Your task to perform on an android device: set the timer Image 0: 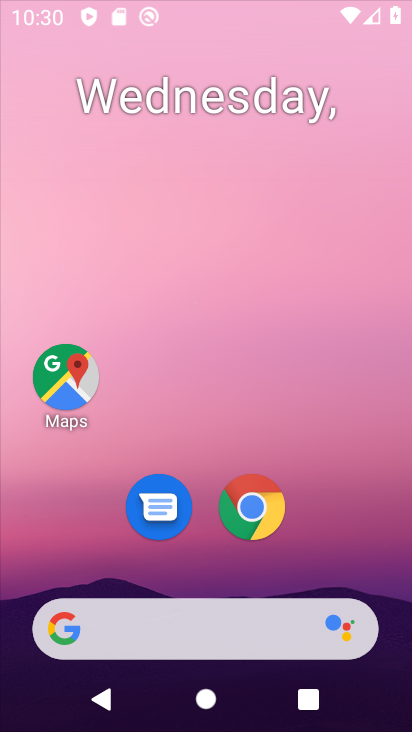
Step 0: drag from (265, 669) to (144, 290)
Your task to perform on an android device: set the timer Image 1: 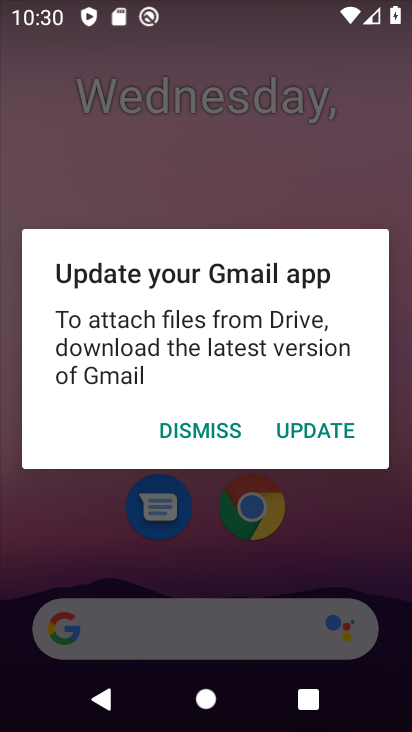
Step 1: press home button
Your task to perform on an android device: set the timer Image 2: 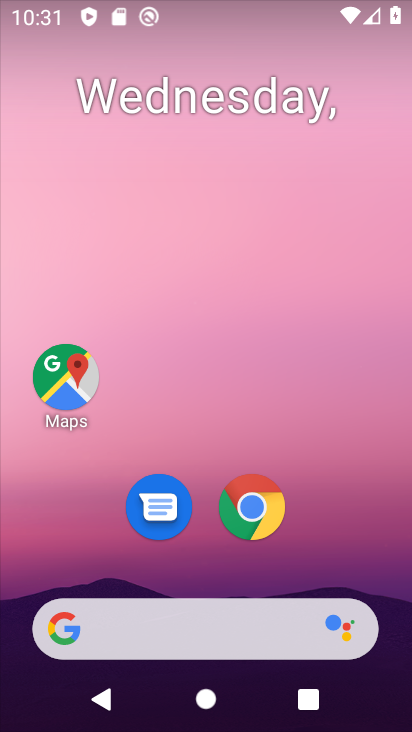
Step 2: drag from (261, 577) to (226, 268)
Your task to perform on an android device: set the timer Image 3: 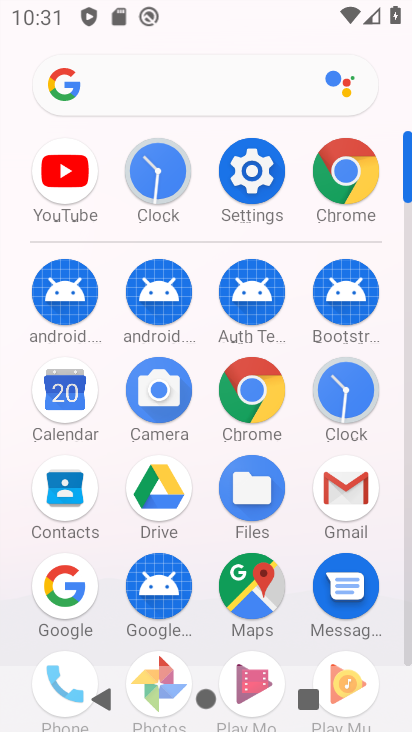
Step 3: click (143, 209)
Your task to perform on an android device: set the timer Image 4: 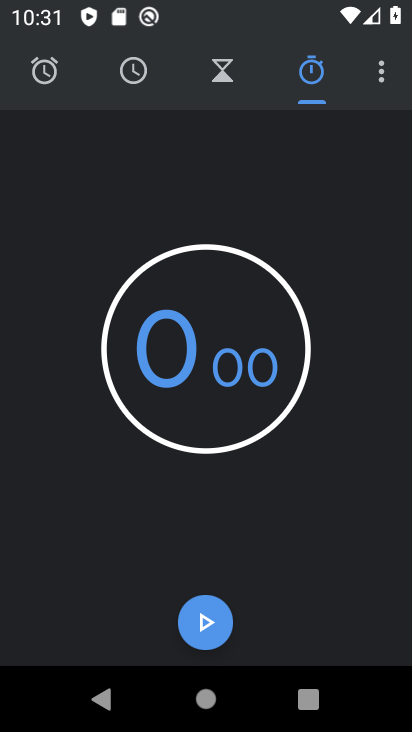
Step 4: click (215, 62)
Your task to perform on an android device: set the timer Image 5: 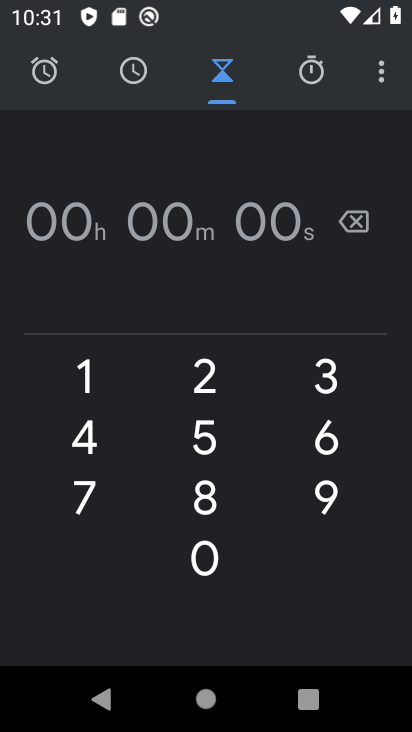
Step 5: click (205, 404)
Your task to perform on an android device: set the timer Image 6: 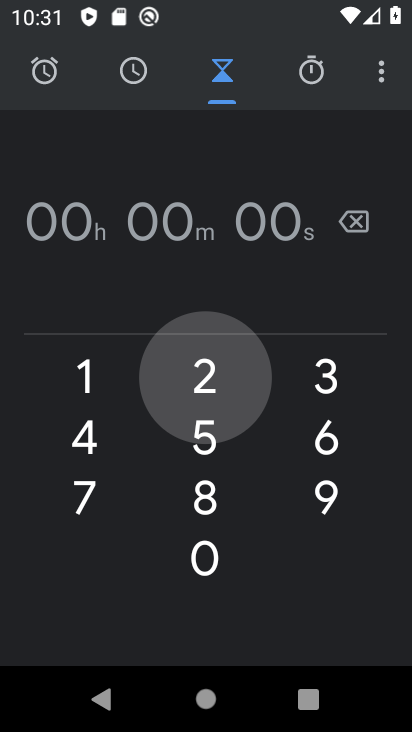
Step 6: click (209, 427)
Your task to perform on an android device: set the timer Image 7: 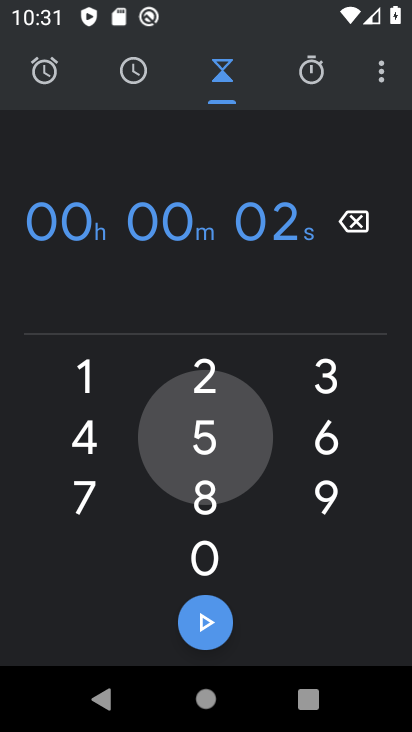
Step 7: click (215, 489)
Your task to perform on an android device: set the timer Image 8: 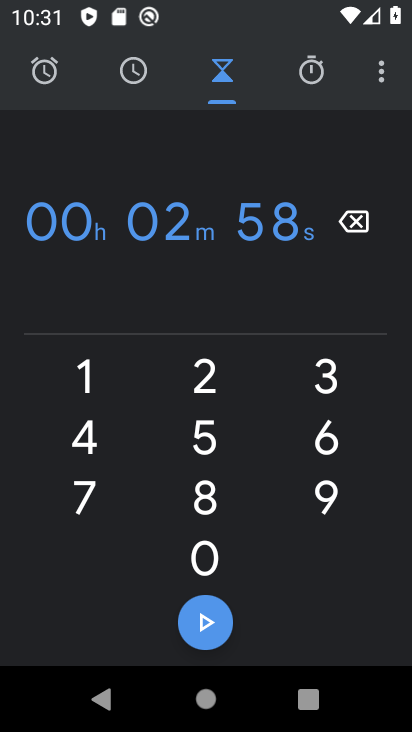
Step 8: click (326, 504)
Your task to perform on an android device: set the timer Image 9: 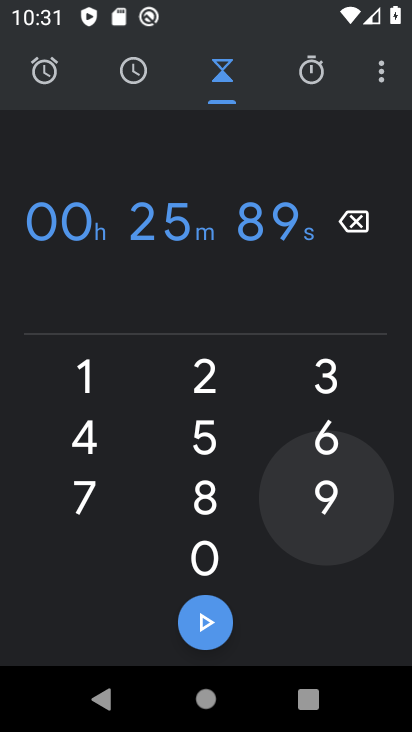
Step 9: click (315, 453)
Your task to perform on an android device: set the timer Image 10: 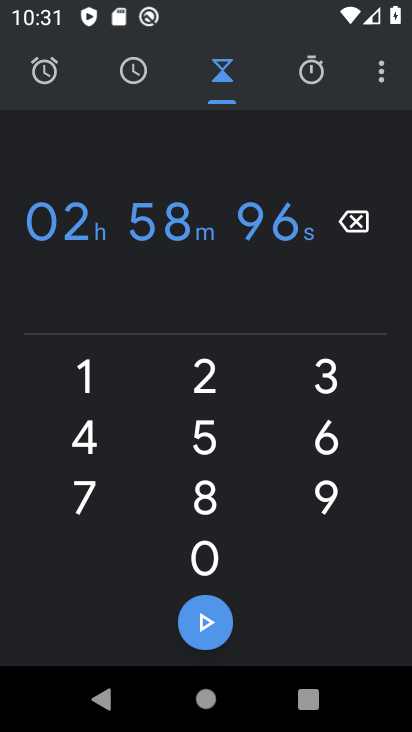
Step 10: click (208, 627)
Your task to perform on an android device: set the timer Image 11: 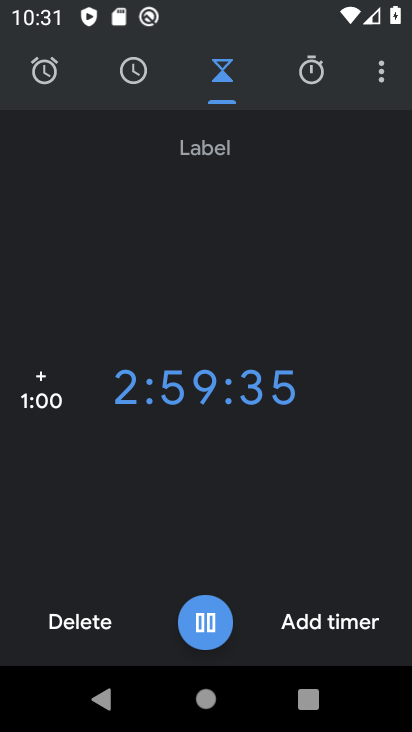
Step 11: task complete